Your task to perform on an android device: set default search engine in the chrome app Image 0: 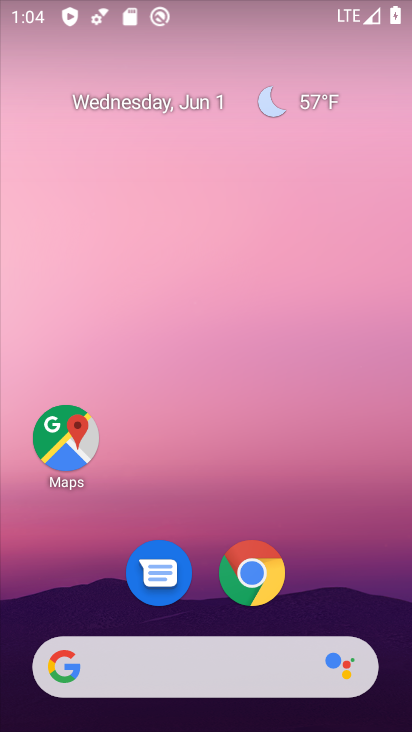
Step 0: drag from (205, 610) to (211, 225)
Your task to perform on an android device: set default search engine in the chrome app Image 1: 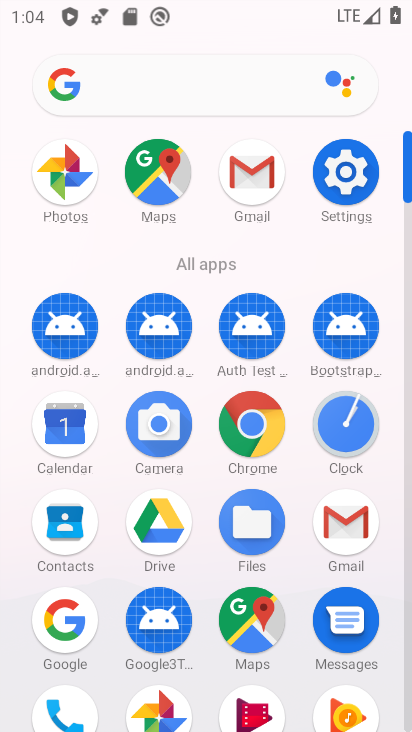
Step 1: click (254, 423)
Your task to perform on an android device: set default search engine in the chrome app Image 2: 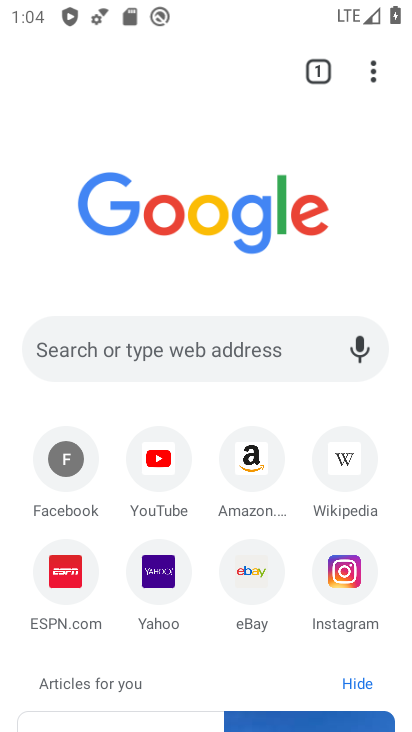
Step 2: drag from (202, 620) to (192, 233)
Your task to perform on an android device: set default search engine in the chrome app Image 3: 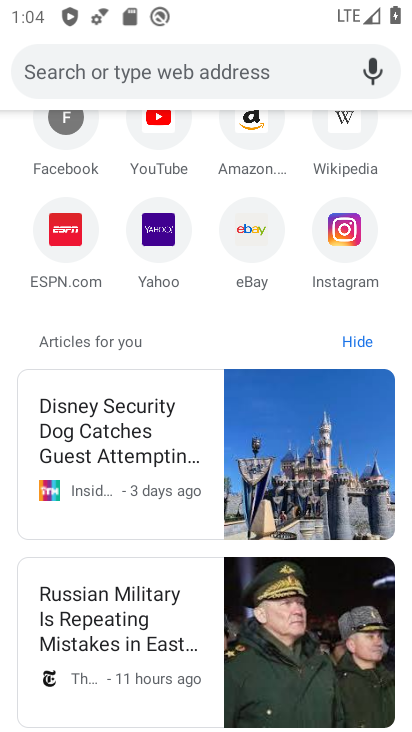
Step 3: drag from (190, 307) to (204, 117)
Your task to perform on an android device: set default search engine in the chrome app Image 4: 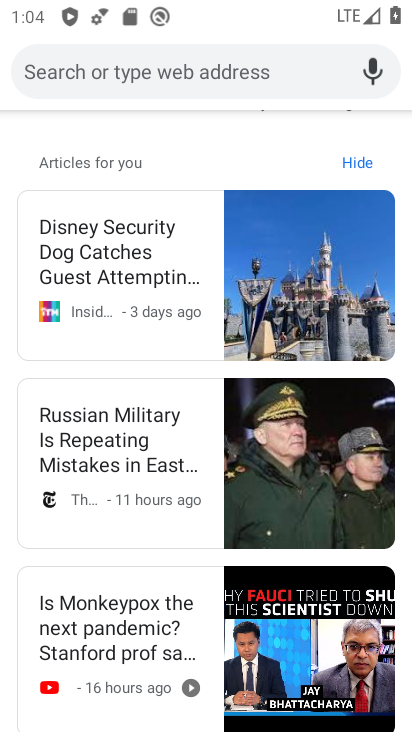
Step 4: drag from (175, 568) to (196, 145)
Your task to perform on an android device: set default search engine in the chrome app Image 5: 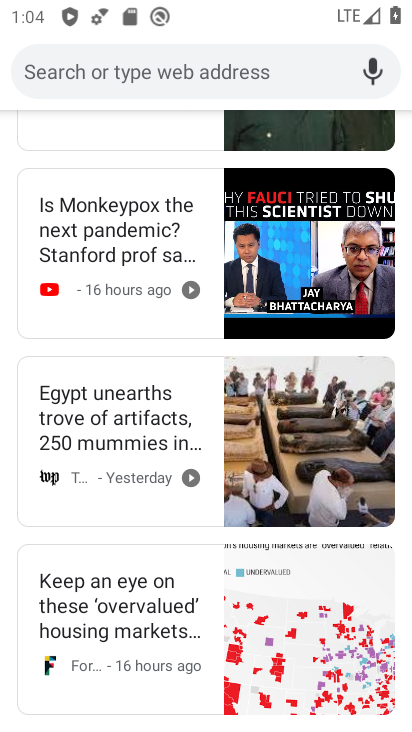
Step 5: drag from (201, 210) to (273, 673)
Your task to perform on an android device: set default search engine in the chrome app Image 6: 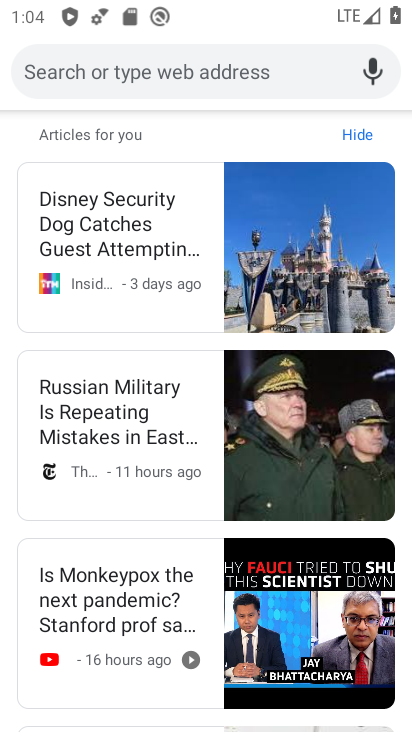
Step 6: drag from (231, 115) to (233, 711)
Your task to perform on an android device: set default search engine in the chrome app Image 7: 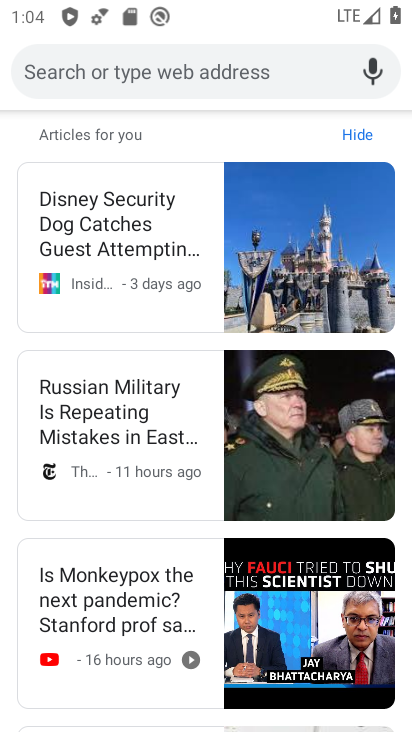
Step 7: drag from (188, 141) to (217, 599)
Your task to perform on an android device: set default search engine in the chrome app Image 8: 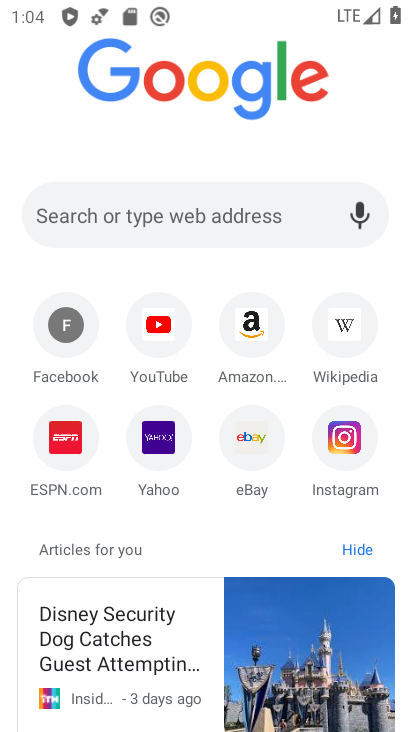
Step 8: drag from (281, 136) to (285, 612)
Your task to perform on an android device: set default search engine in the chrome app Image 9: 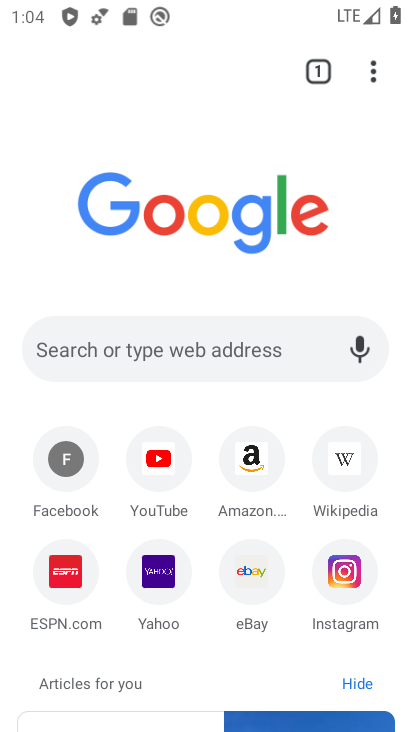
Step 9: drag from (369, 79) to (158, 610)
Your task to perform on an android device: set default search engine in the chrome app Image 10: 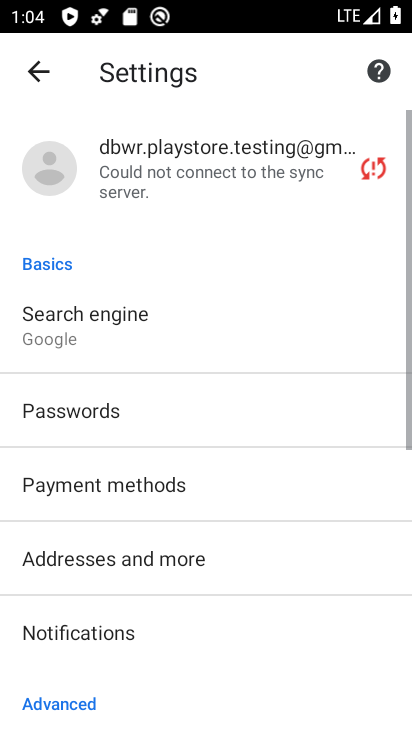
Step 10: click (177, 306)
Your task to perform on an android device: set default search engine in the chrome app Image 11: 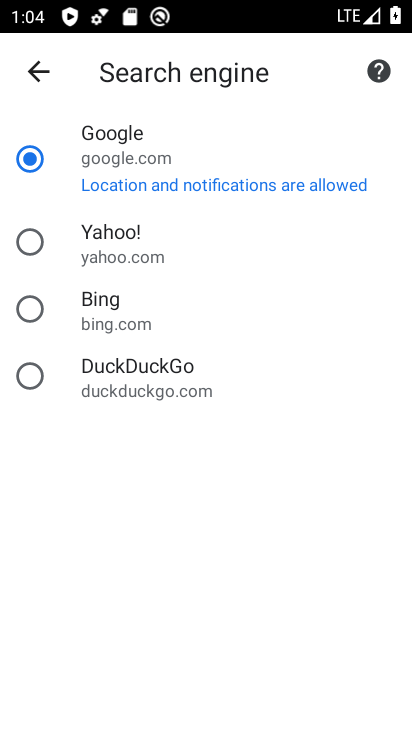
Step 11: task complete